Your task to perform on an android device: check out phone information Image 0: 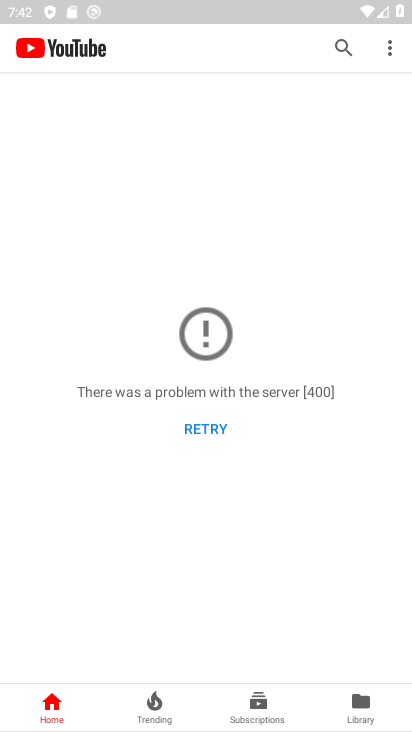
Step 0: press home button
Your task to perform on an android device: check out phone information Image 1: 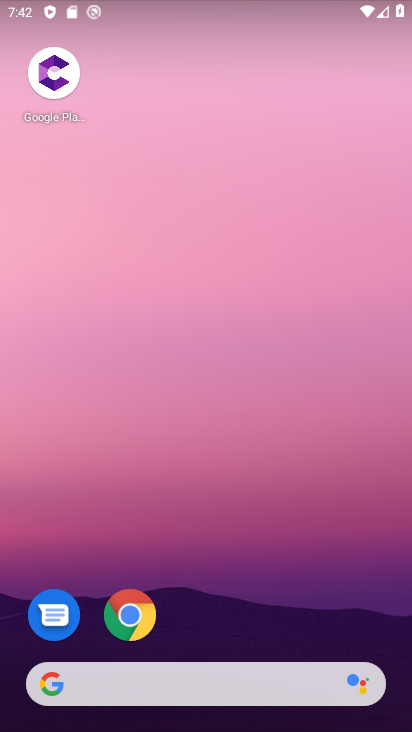
Step 1: drag from (258, 561) to (314, 2)
Your task to perform on an android device: check out phone information Image 2: 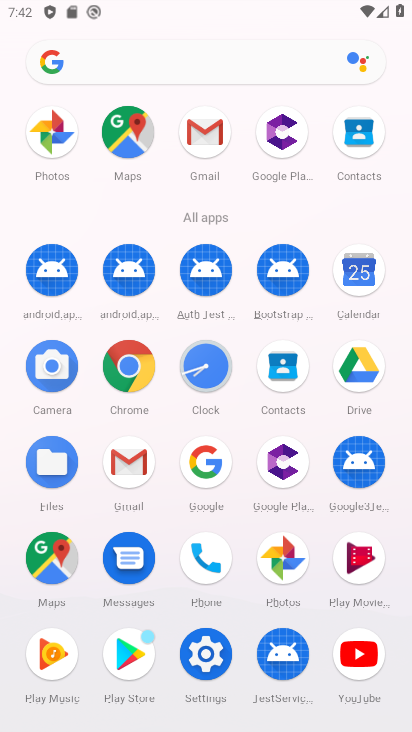
Step 2: click (214, 549)
Your task to perform on an android device: check out phone information Image 3: 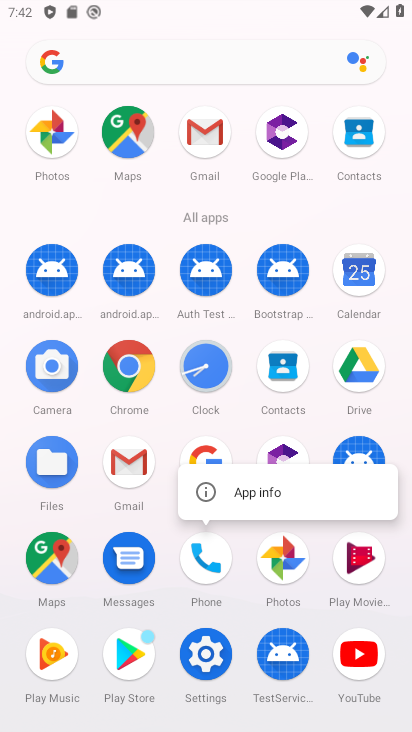
Step 3: click (214, 549)
Your task to perform on an android device: check out phone information Image 4: 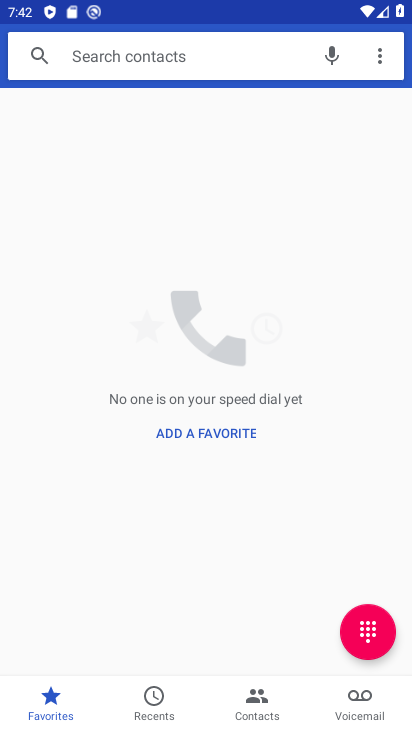
Step 4: click (380, 48)
Your task to perform on an android device: check out phone information Image 5: 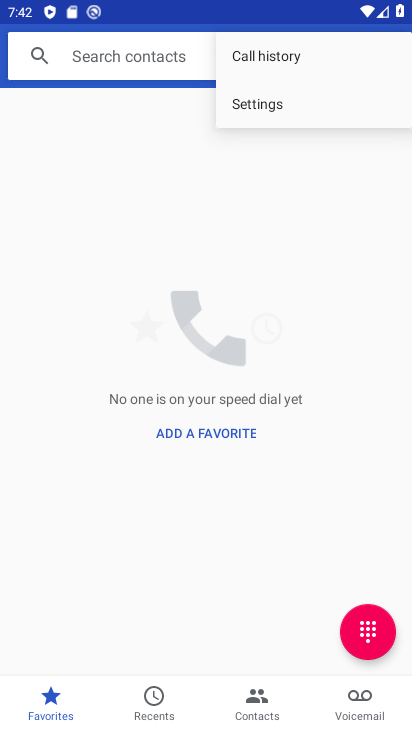
Step 5: click (329, 103)
Your task to perform on an android device: check out phone information Image 6: 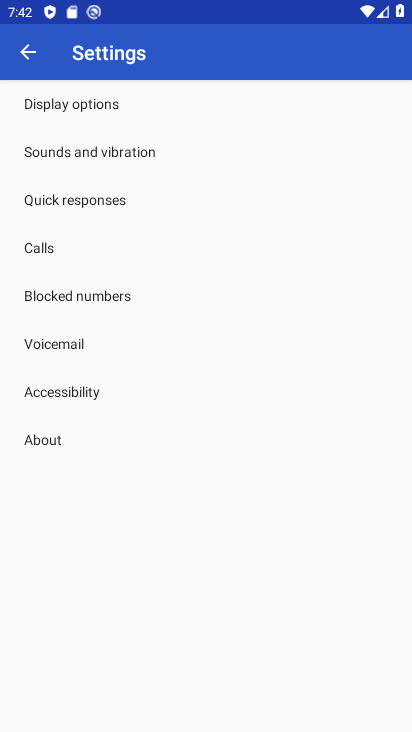
Step 6: click (39, 428)
Your task to perform on an android device: check out phone information Image 7: 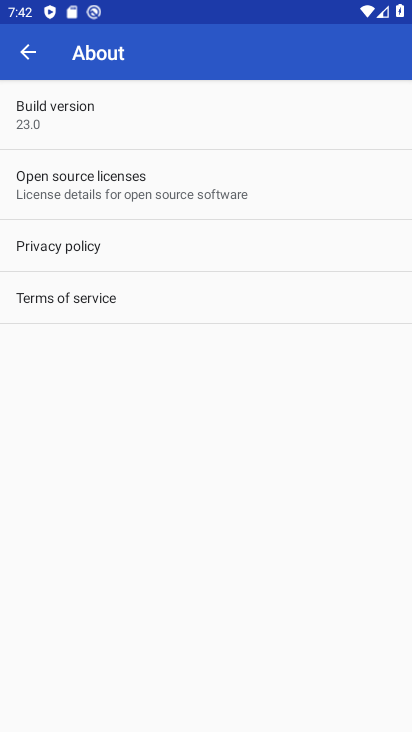
Step 7: task complete